Your task to perform on an android device: turn on bluetooth scan Image 0: 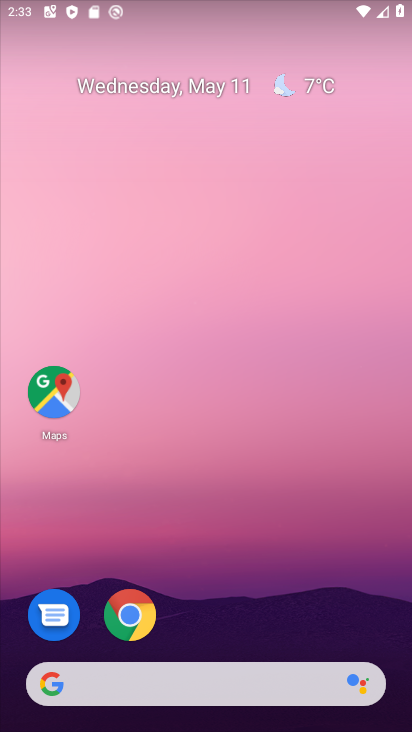
Step 0: drag from (298, 595) to (281, 117)
Your task to perform on an android device: turn on bluetooth scan Image 1: 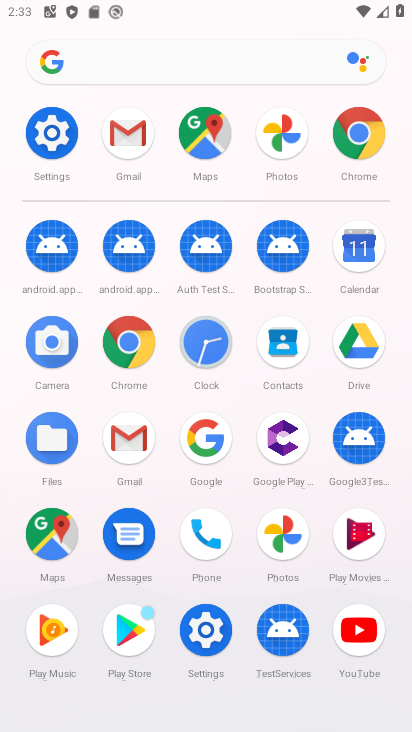
Step 1: click (62, 133)
Your task to perform on an android device: turn on bluetooth scan Image 2: 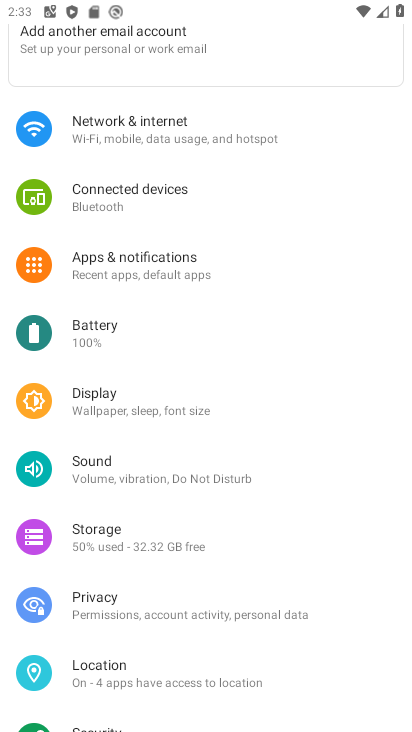
Step 2: drag from (236, 618) to (269, 353)
Your task to perform on an android device: turn on bluetooth scan Image 3: 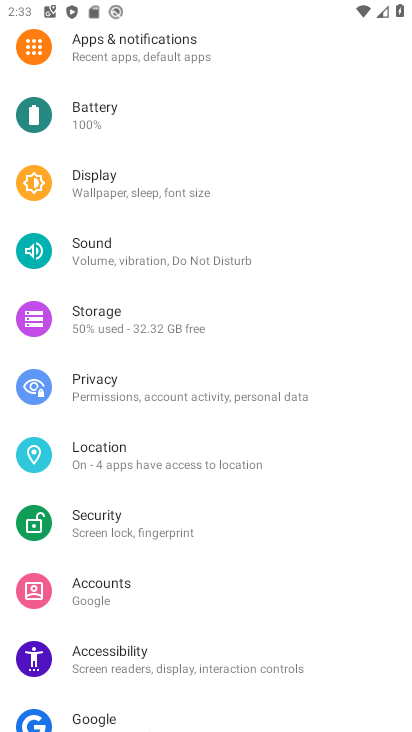
Step 3: click (159, 454)
Your task to perform on an android device: turn on bluetooth scan Image 4: 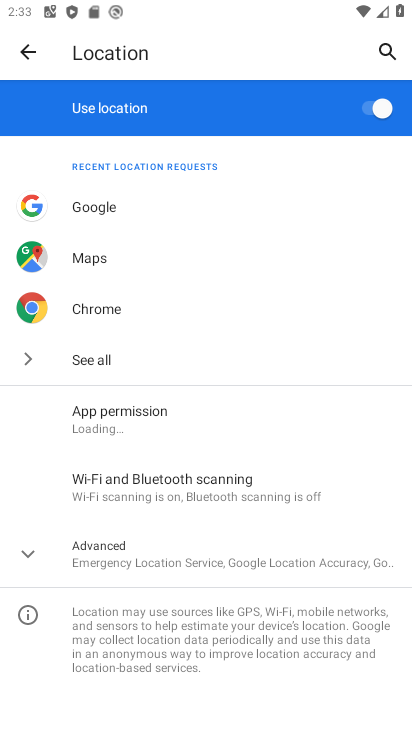
Step 4: click (149, 560)
Your task to perform on an android device: turn on bluetooth scan Image 5: 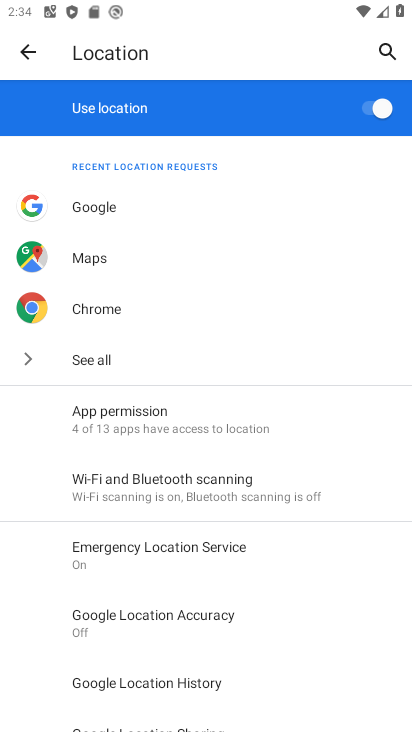
Step 5: drag from (221, 621) to (285, 316)
Your task to perform on an android device: turn on bluetooth scan Image 6: 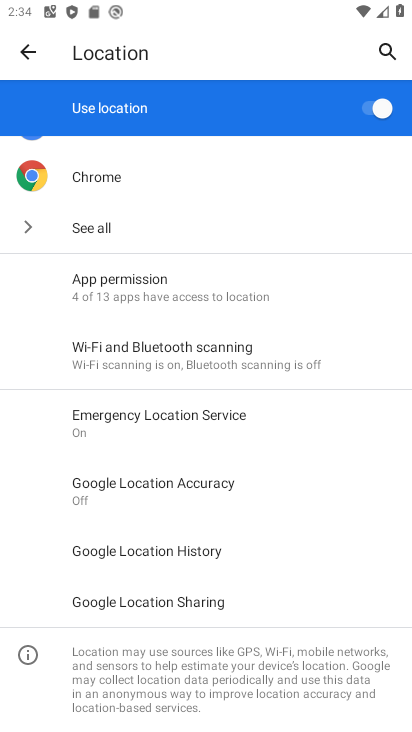
Step 6: click (203, 363)
Your task to perform on an android device: turn on bluetooth scan Image 7: 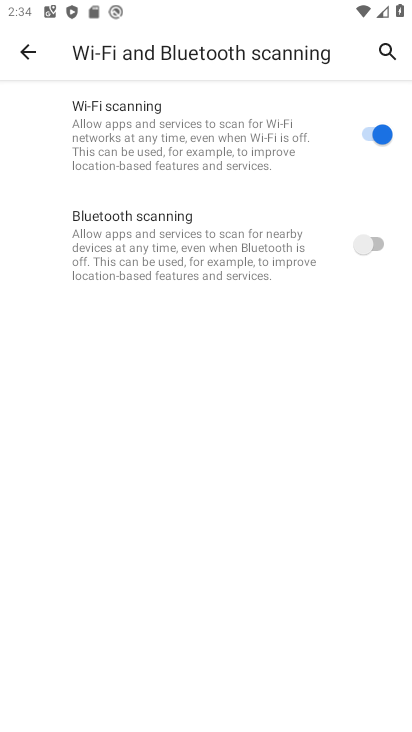
Step 7: click (358, 241)
Your task to perform on an android device: turn on bluetooth scan Image 8: 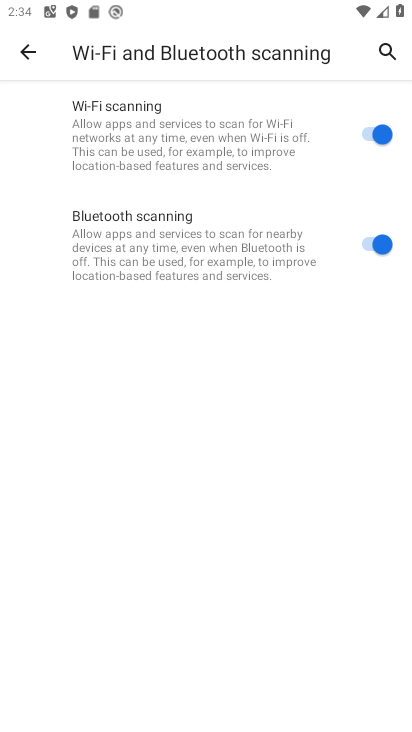
Step 8: task complete